Your task to perform on an android device: Show me popular videos on Youtube Image 0: 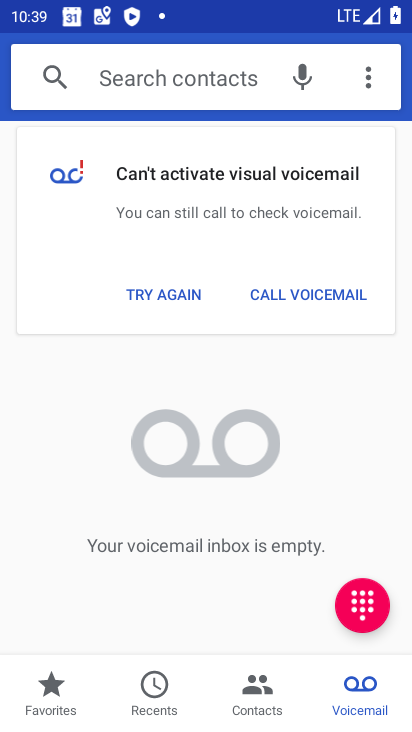
Step 0: press home button
Your task to perform on an android device: Show me popular videos on Youtube Image 1: 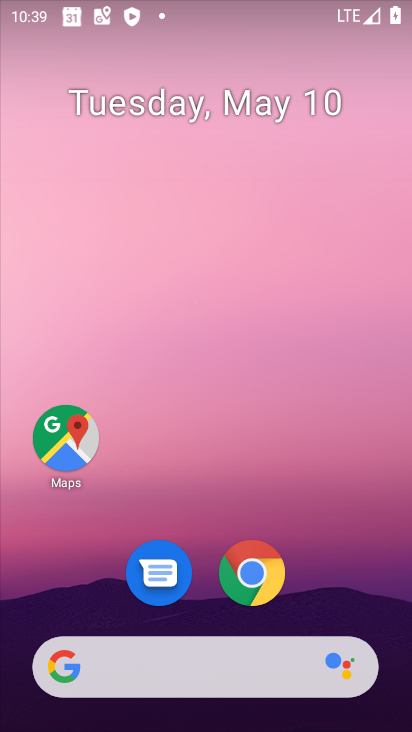
Step 1: drag from (325, 530) to (138, 78)
Your task to perform on an android device: Show me popular videos on Youtube Image 2: 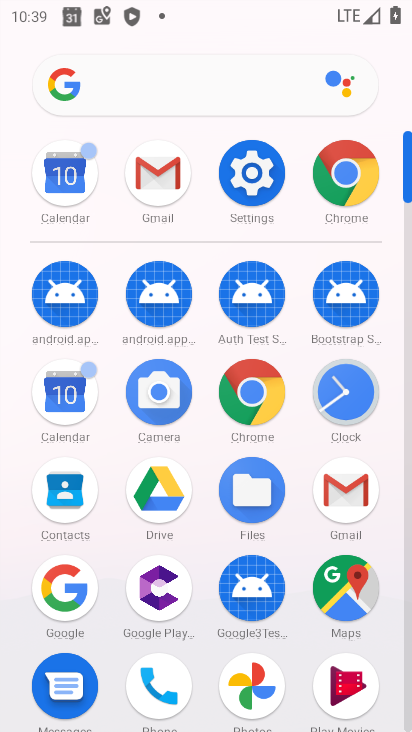
Step 2: click (394, 707)
Your task to perform on an android device: Show me popular videos on Youtube Image 3: 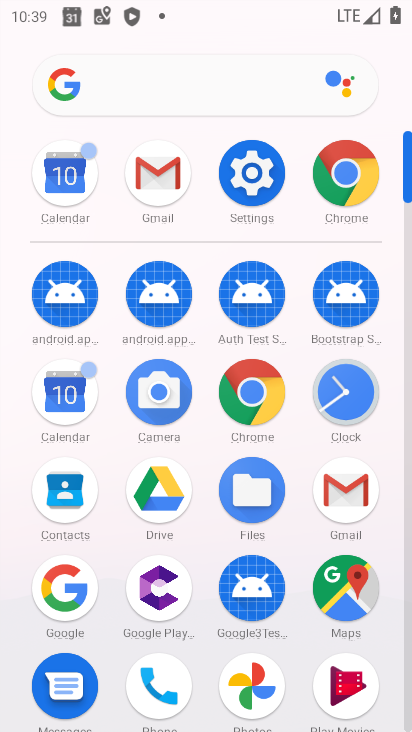
Step 3: click (394, 707)
Your task to perform on an android device: Show me popular videos on Youtube Image 4: 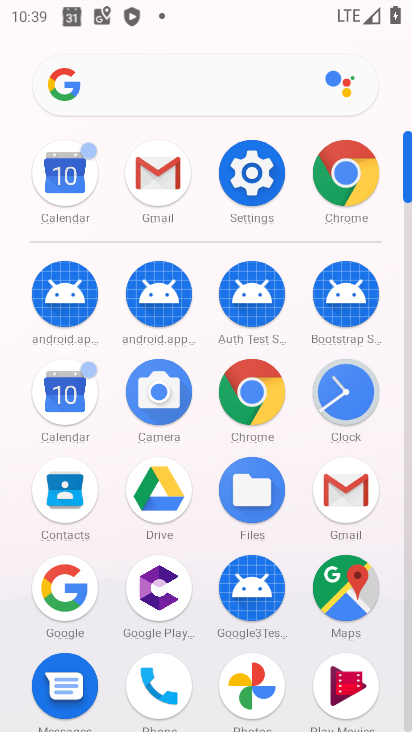
Step 4: click (394, 707)
Your task to perform on an android device: Show me popular videos on Youtube Image 5: 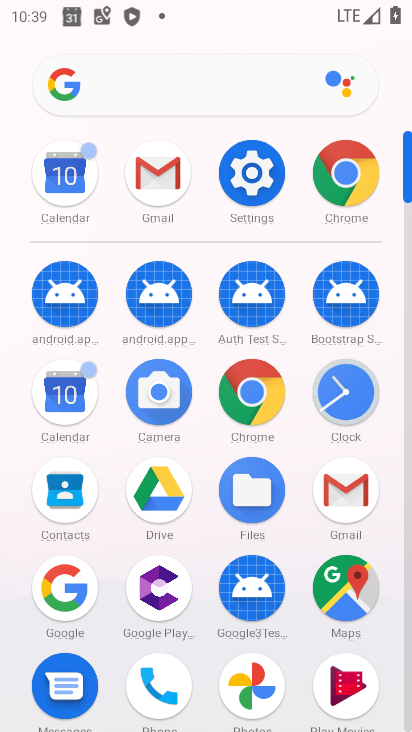
Step 5: click (394, 707)
Your task to perform on an android device: Show me popular videos on Youtube Image 6: 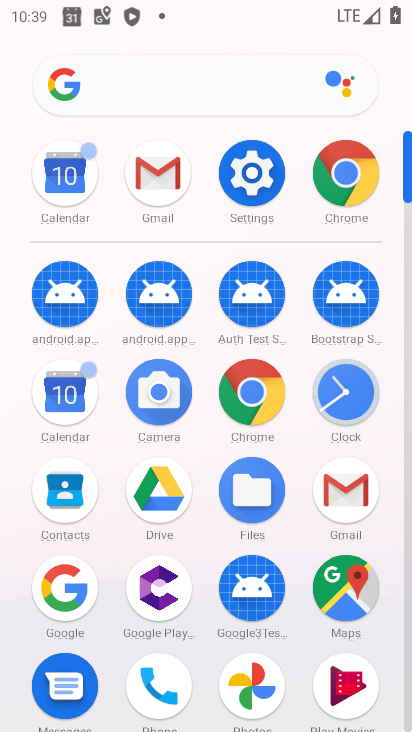
Step 6: click (394, 707)
Your task to perform on an android device: Show me popular videos on Youtube Image 7: 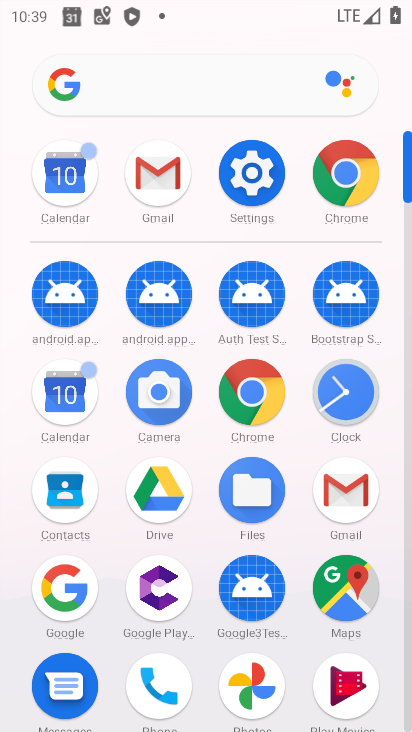
Step 7: click (394, 707)
Your task to perform on an android device: Show me popular videos on Youtube Image 8: 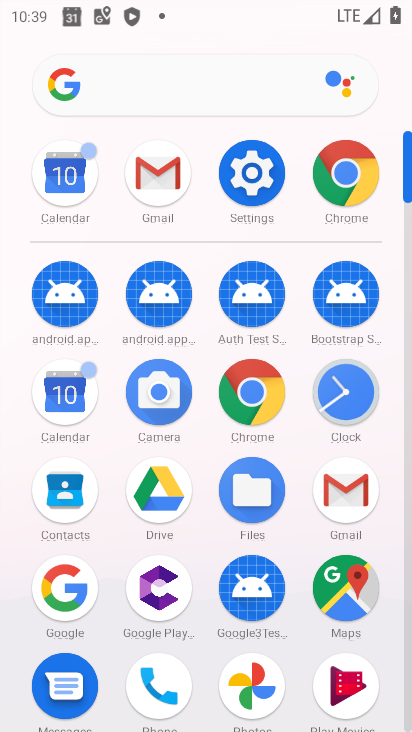
Step 8: click (394, 707)
Your task to perform on an android device: Show me popular videos on Youtube Image 9: 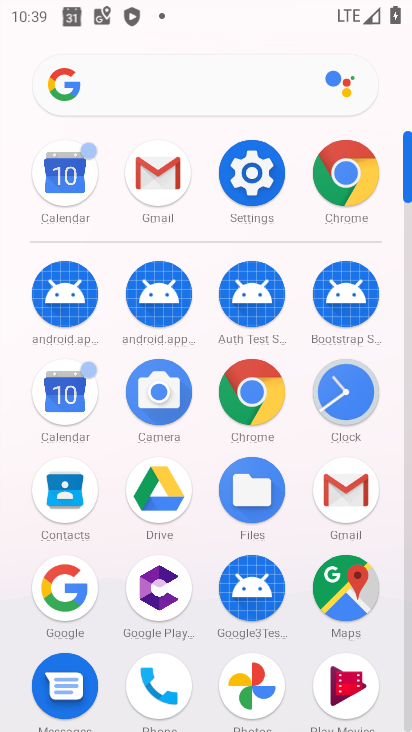
Step 9: click (394, 707)
Your task to perform on an android device: Show me popular videos on Youtube Image 10: 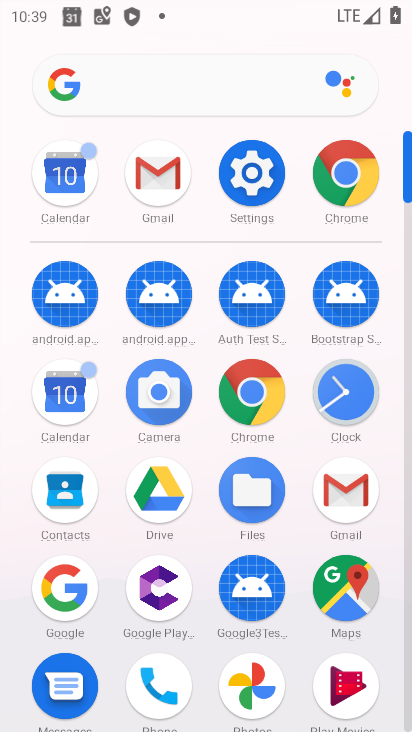
Step 10: click (394, 707)
Your task to perform on an android device: Show me popular videos on Youtube Image 11: 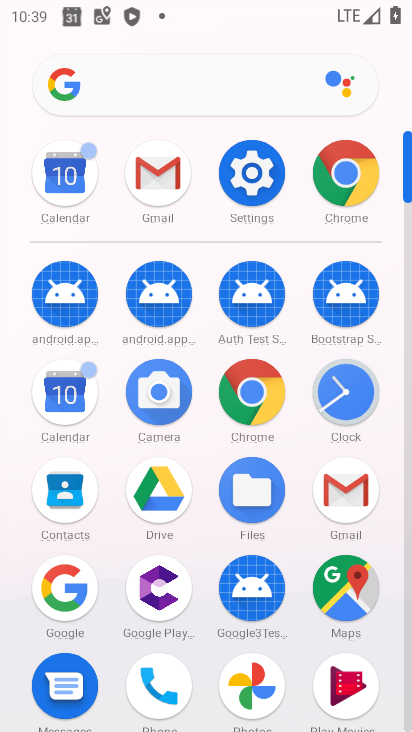
Step 11: click (394, 707)
Your task to perform on an android device: Show me popular videos on Youtube Image 12: 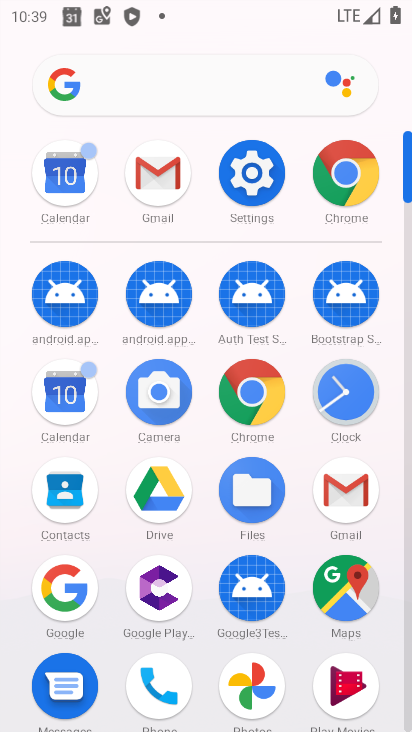
Step 12: click (408, 696)
Your task to perform on an android device: Show me popular videos on Youtube Image 13: 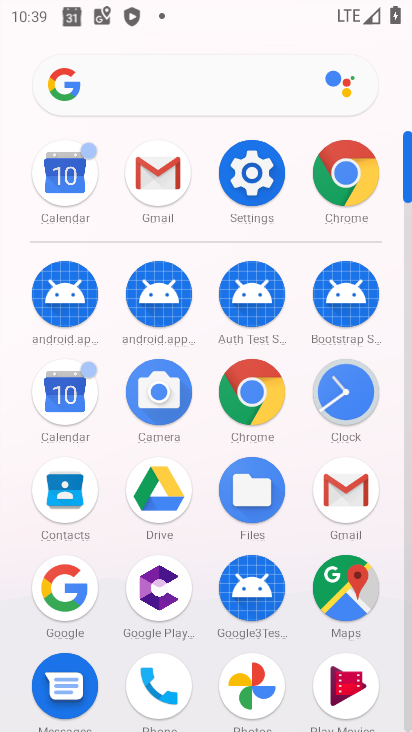
Step 13: click (408, 696)
Your task to perform on an android device: Show me popular videos on Youtube Image 14: 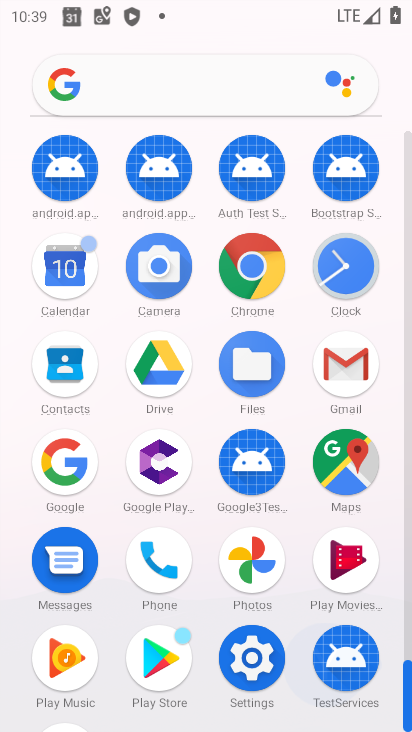
Step 14: click (408, 696)
Your task to perform on an android device: Show me popular videos on Youtube Image 15: 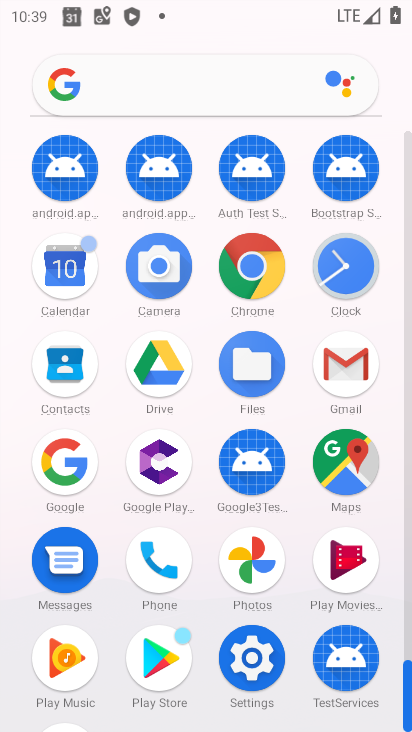
Step 15: click (408, 696)
Your task to perform on an android device: Show me popular videos on Youtube Image 16: 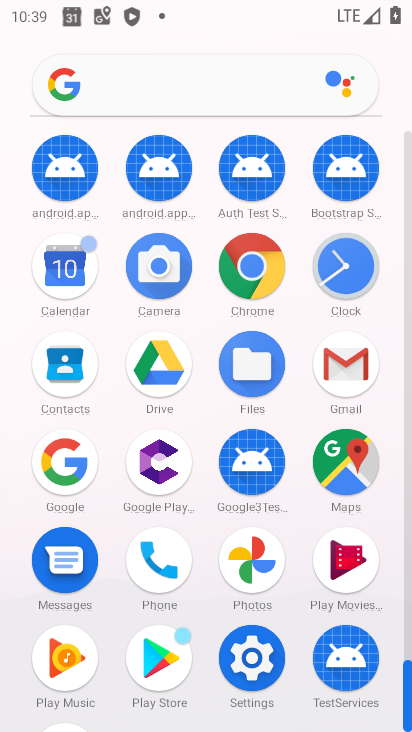
Step 16: click (408, 696)
Your task to perform on an android device: Show me popular videos on Youtube Image 17: 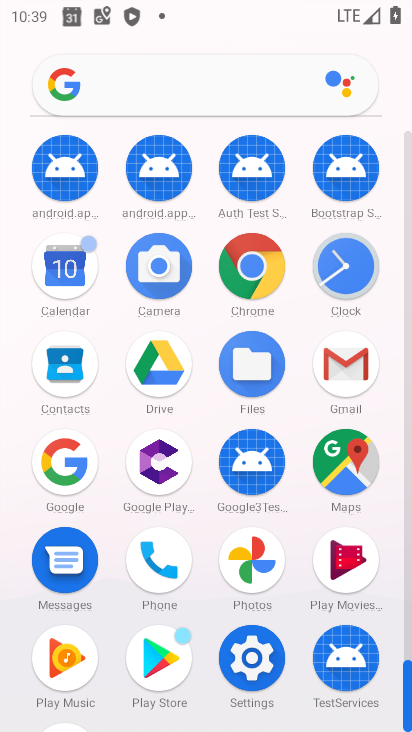
Step 17: click (408, 696)
Your task to perform on an android device: Show me popular videos on Youtube Image 18: 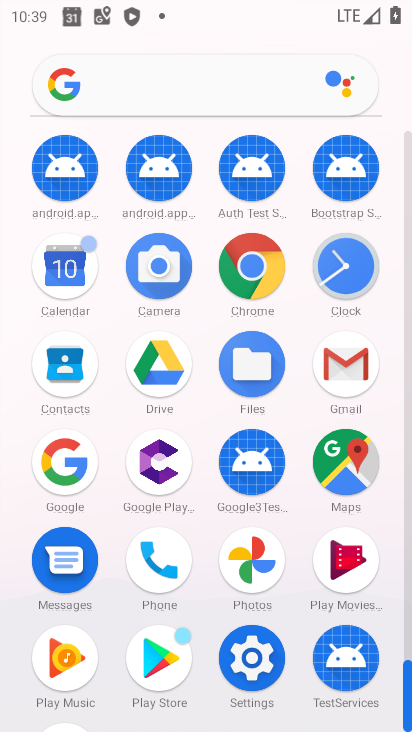
Step 18: drag from (217, 721) to (170, 418)
Your task to perform on an android device: Show me popular videos on Youtube Image 19: 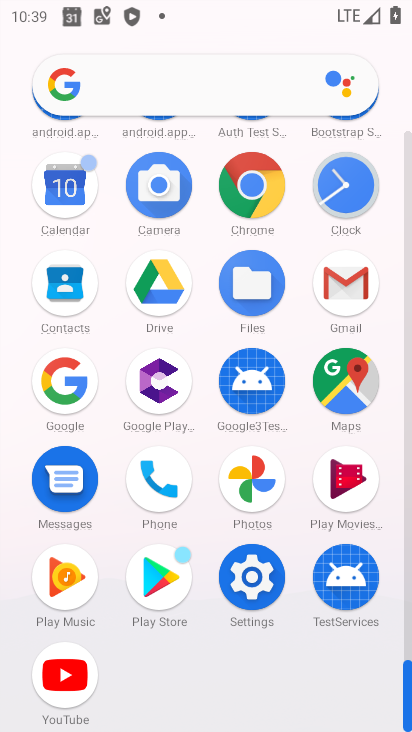
Step 19: click (67, 683)
Your task to perform on an android device: Show me popular videos on Youtube Image 20: 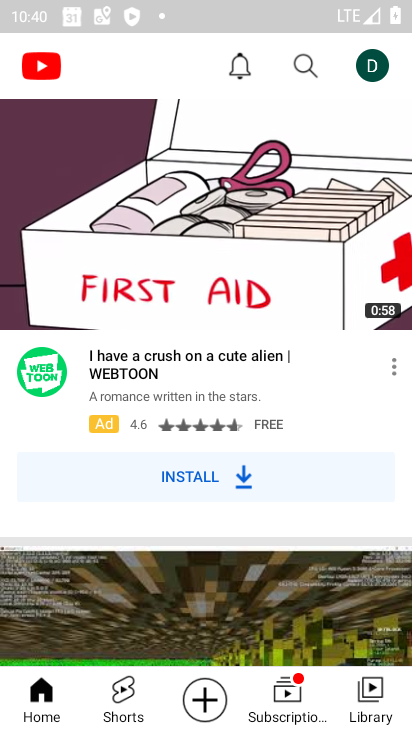
Step 20: click (120, 677)
Your task to perform on an android device: Show me popular videos on Youtube Image 21: 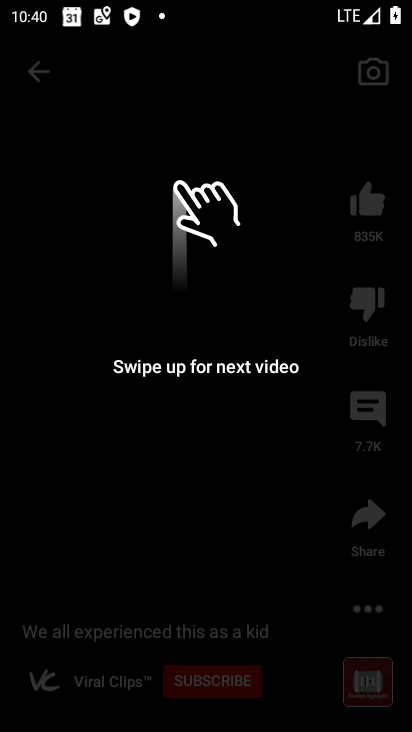
Step 21: task complete